Your task to perform on an android device: Is it going to rain today? Image 0: 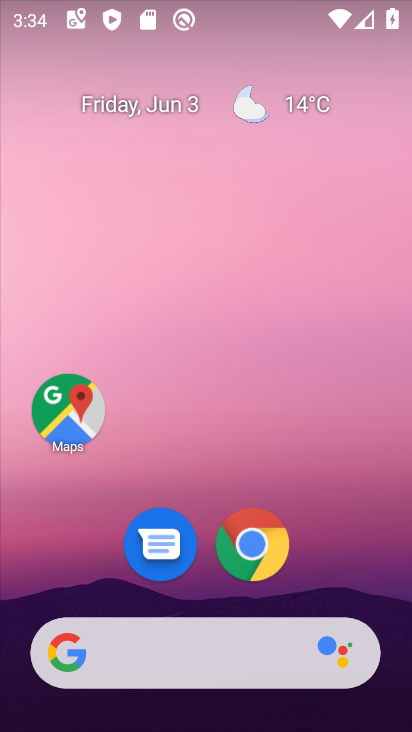
Step 0: click (312, 106)
Your task to perform on an android device: Is it going to rain today? Image 1: 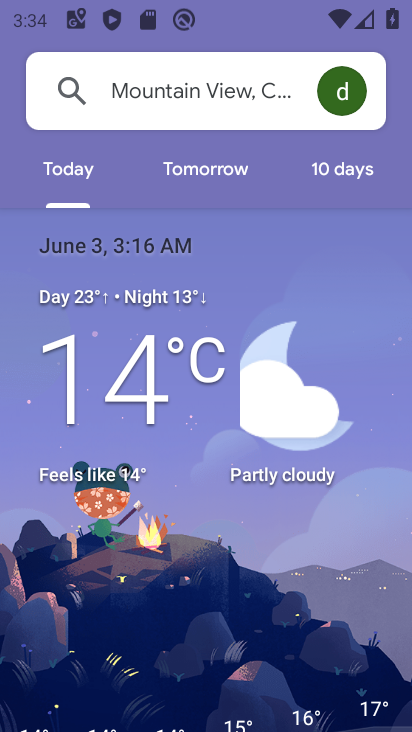
Step 1: task complete